Your task to perform on an android device: change text size in settings app Image 0: 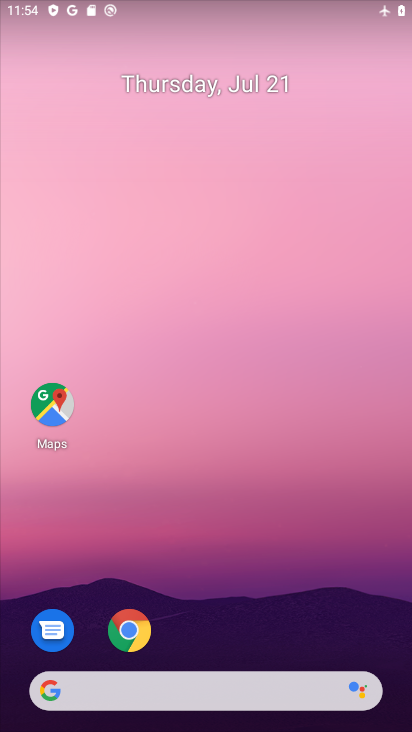
Step 0: drag from (229, 650) to (281, 731)
Your task to perform on an android device: change text size in settings app Image 1: 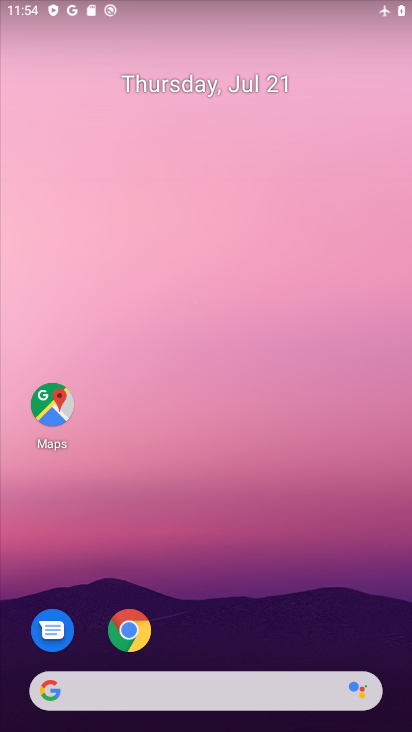
Step 1: drag from (221, 658) to (393, 345)
Your task to perform on an android device: change text size in settings app Image 2: 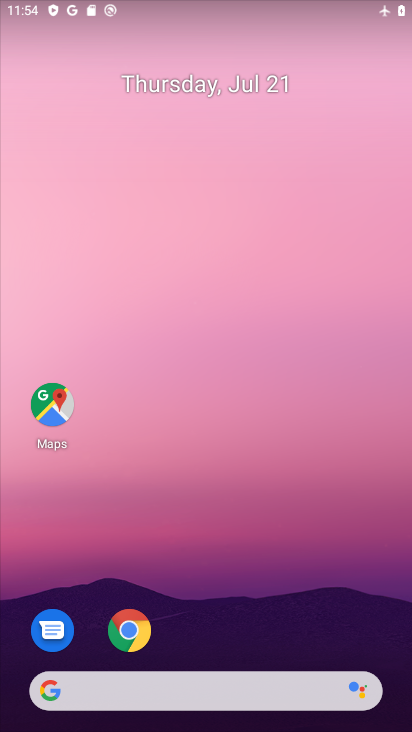
Step 2: drag from (218, 646) to (190, 40)
Your task to perform on an android device: change text size in settings app Image 3: 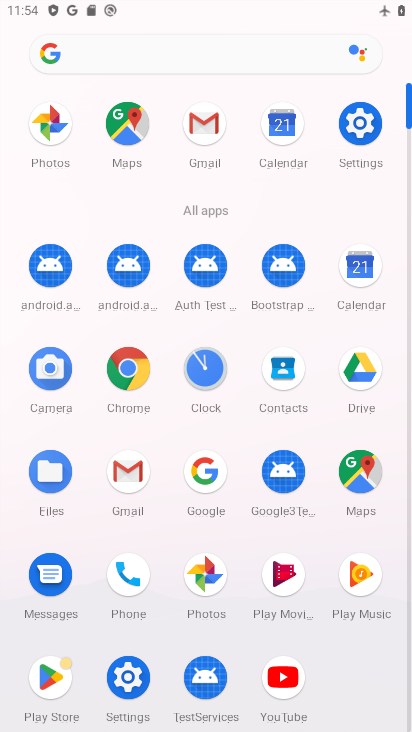
Step 3: click (357, 136)
Your task to perform on an android device: change text size in settings app Image 4: 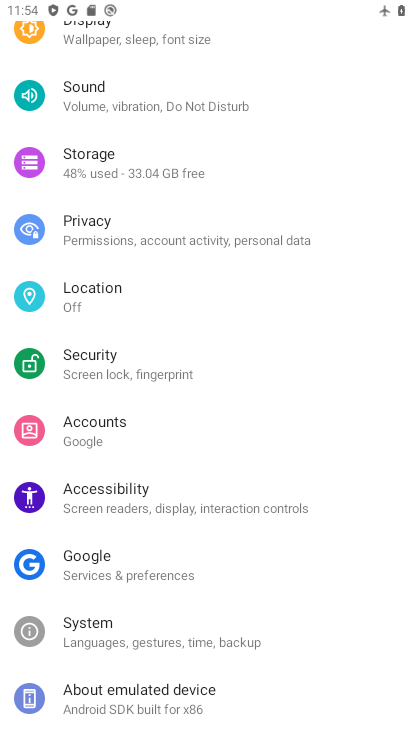
Step 4: drag from (98, 125) to (92, 461)
Your task to perform on an android device: change text size in settings app Image 5: 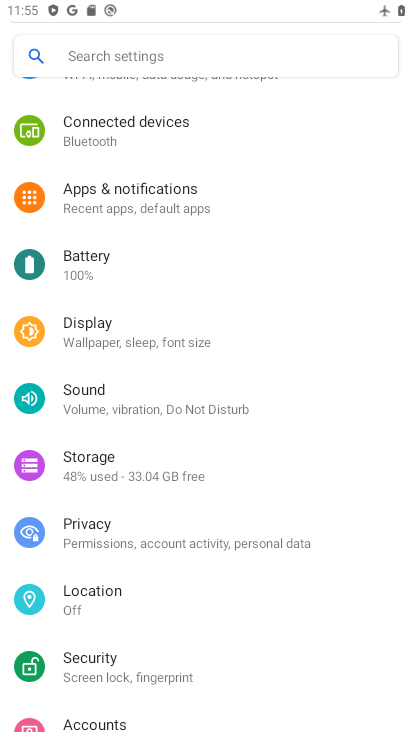
Step 5: click (112, 317)
Your task to perform on an android device: change text size in settings app Image 6: 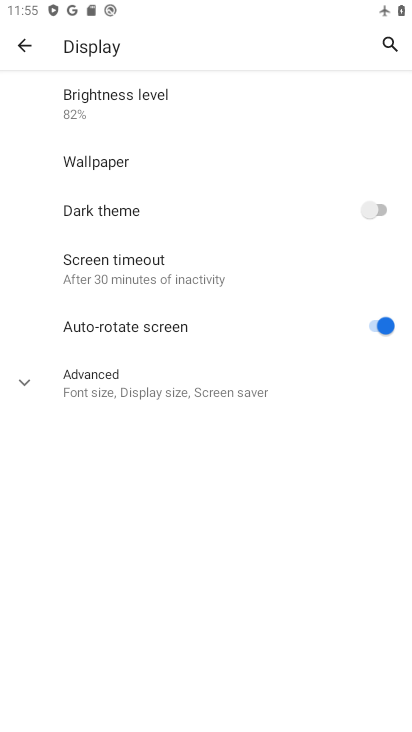
Step 6: click (144, 366)
Your task to perform on an android device: change text size in settings app Image 7: 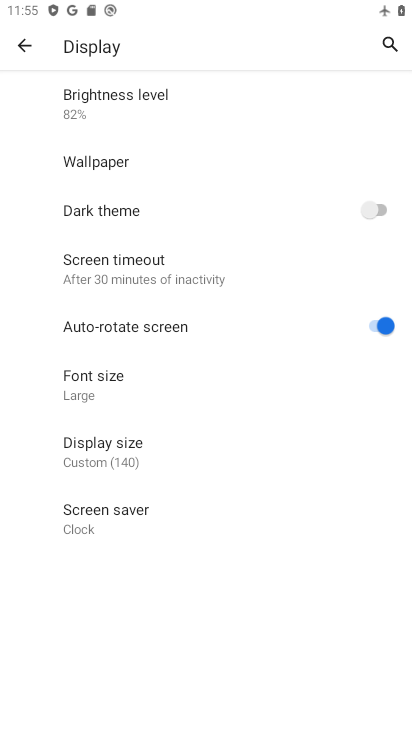
Step 7: task complete